Your task to perform on an android device: find snoozed emails in the gmail app Image 0: 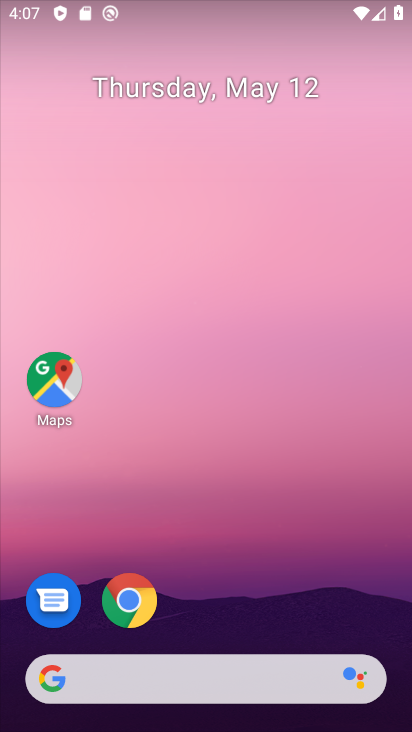
Step 0: click (245, 258)
Your task to perform on an android device: find snoozed emails in the gmail app Image 1: 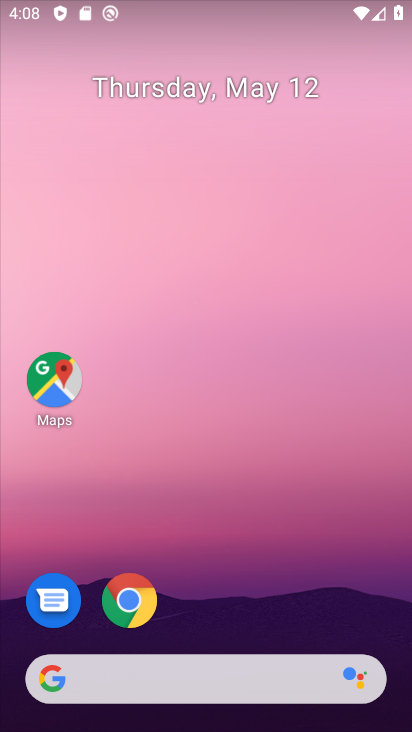
Step 1: drag from (199, 595) to (295, 100)
Your task to perform on an android device: find snoozed emails in the gmail app Image 2: 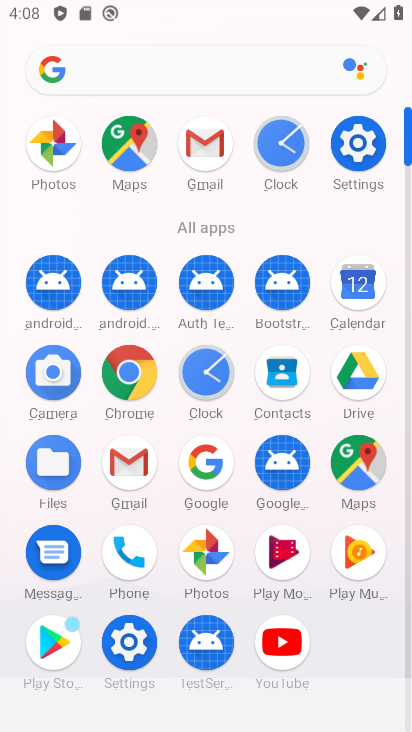
Step 2: click (127, 459)
Your task to perform on an android device: find snoozed emails in the gmail app Image 3: 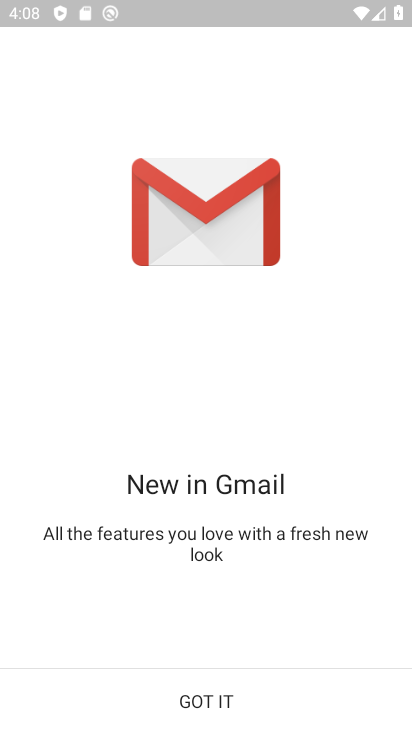
Step 3: click (204, 700)
Your task to perform on an android device: find snoozed emails in the gmail app Image 4: 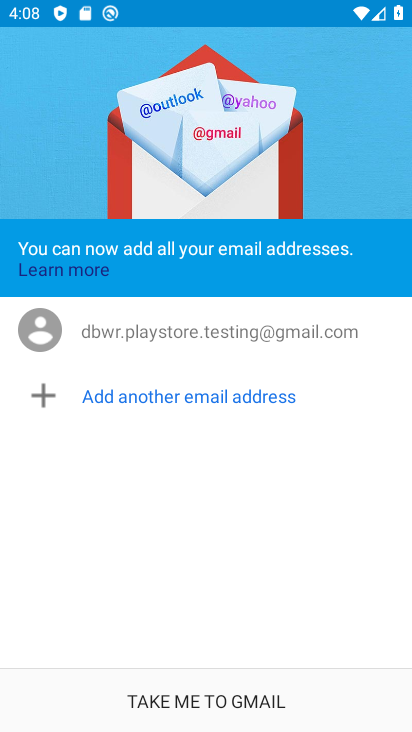
Step 4: click (204, 700)
Your task to perform on an android device: find snoozed emails in the gmail app Image 5: 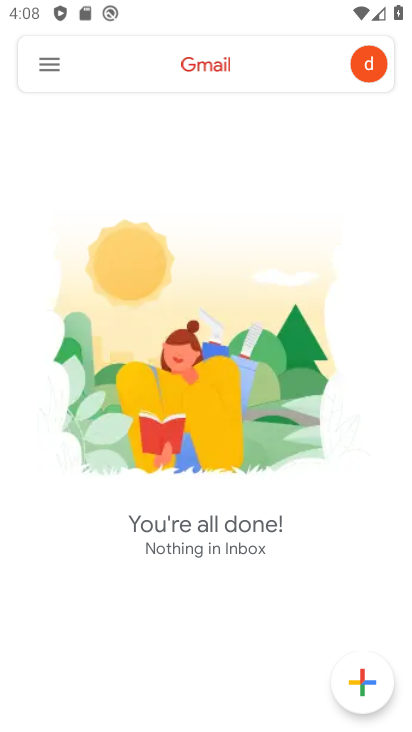
Step 5: click (50, 66)
Your task to perform on an android device: find snoozed emails in the gmail app Image 6: 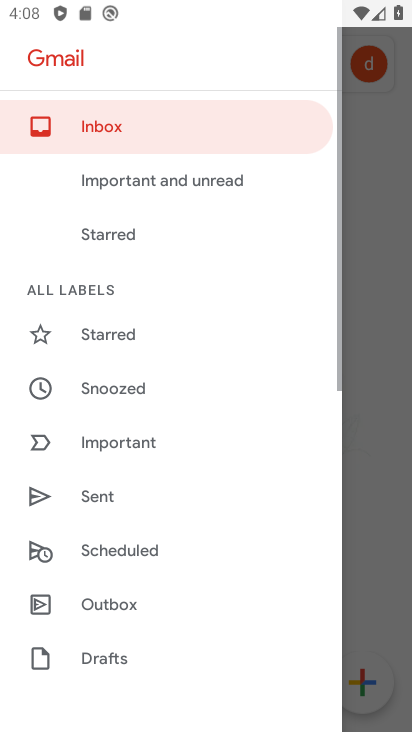
Step 6: drag from (97, 436) to (207, 163)
Your task to perform on an android device: find snoozed emails in the gmail app Image 7: 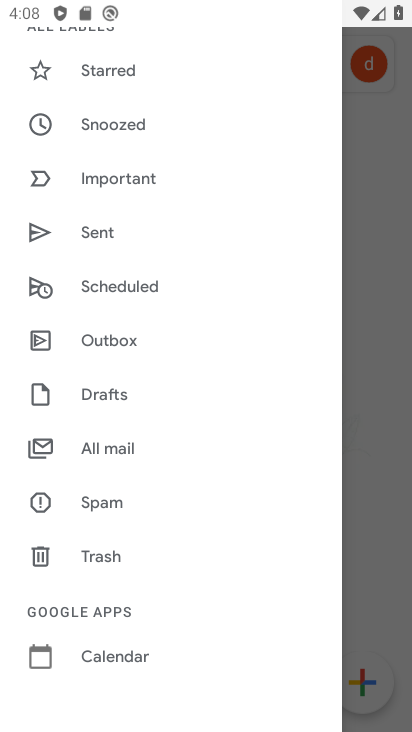
Step 7: drag from (151, 527) to (166, 276)
Your task to perform on an android device: find snoozed emails in the gmail app Image 8: 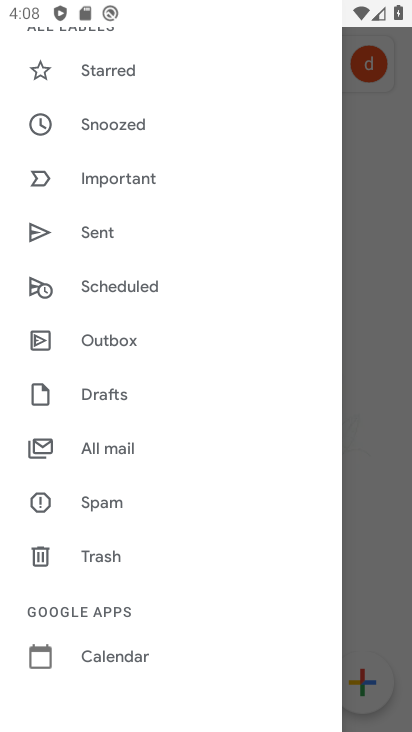
Step 8: drag from (180, 623) to (209, 339)
Your task to perform on an android device: find snoozed emails in the gmail app Image 9: 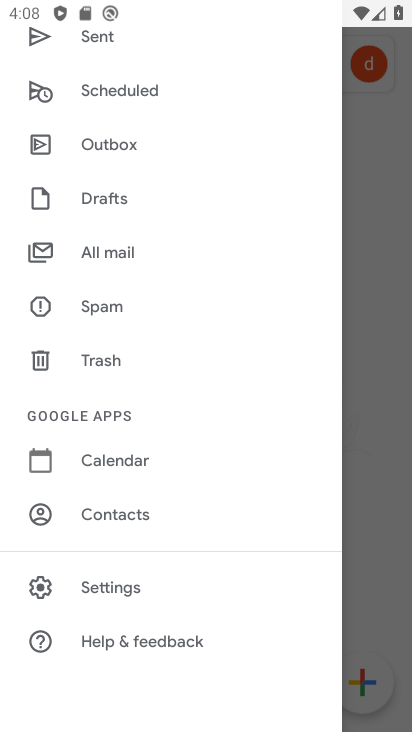
Step 9: drag from (173, 104) to (182, 586)
Your task to perform on an android device: find snoozed emails in the gmail app Image 10: 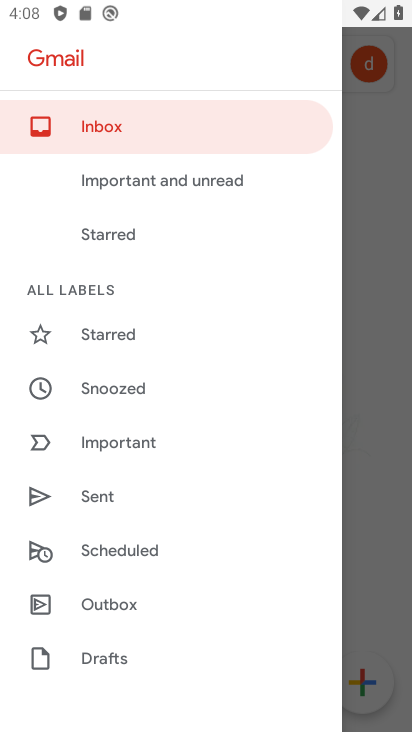
Step 10: click (133, 400)
Your task to perform on an android device: find snoozed emails in the gmail app Image 11: 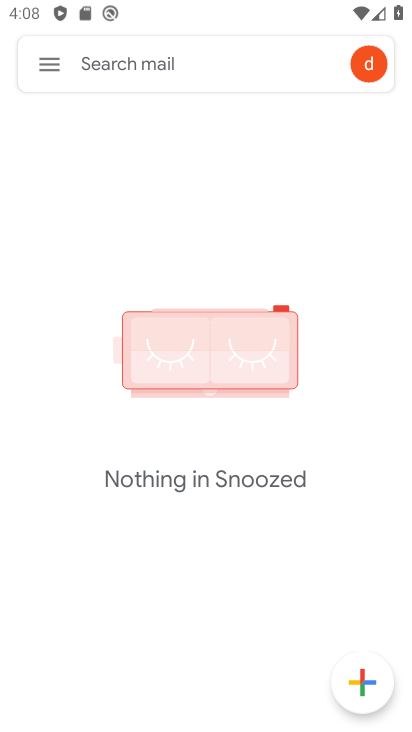
Step 11: task complete